Your task to perform on an android device: add a contact Image 0: 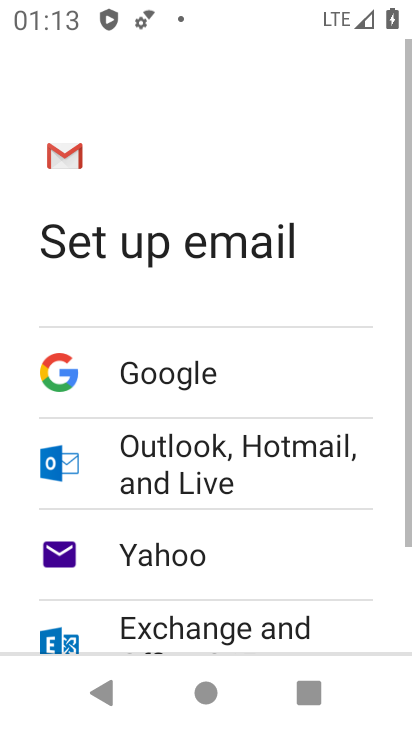
Step 0: press home button
Your task to perform on an android device: add a contact Image 1: 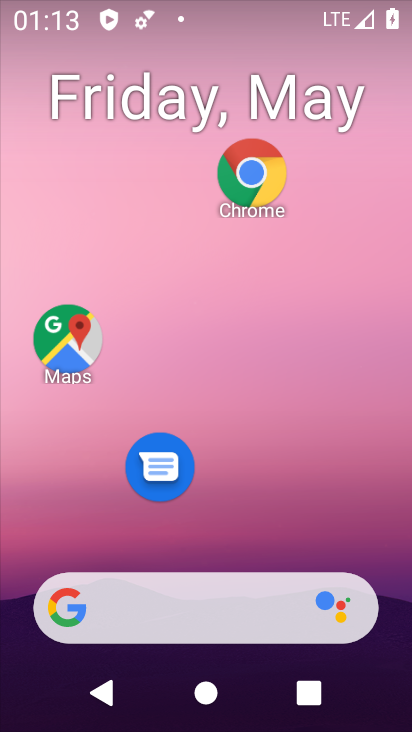
Step 1: drag from (327, 643) to (277, 280)
Your task to perform on an android device: add a contact Image 2: 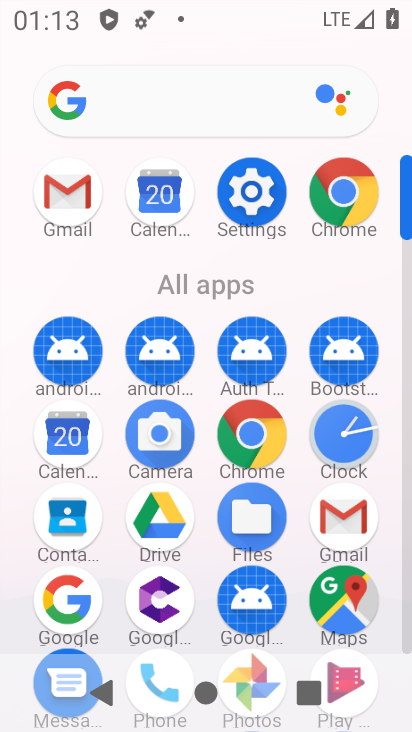
Step 2: drag from (212, 563) to (179, 450)
Your task to perform on an android device: add a contact Image 3: 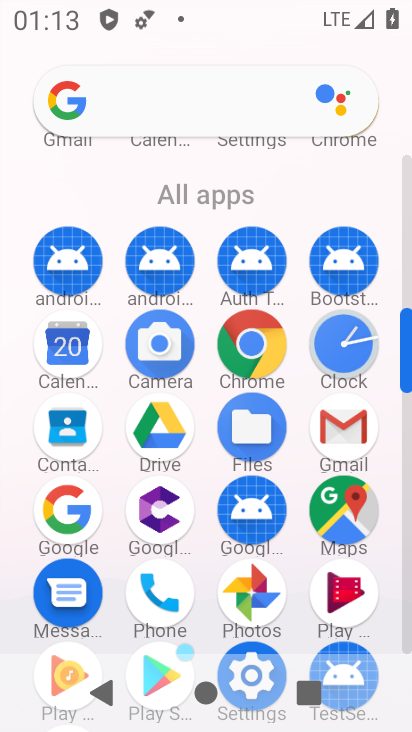
Step 3: click (162, 578)
Your task to perform on an android device: add a contact Image 4: 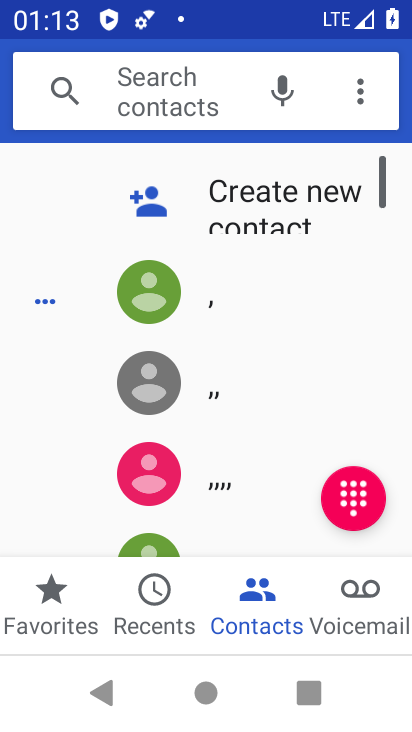
Step 4: click (176, 228)
Your task to perform on an android device: add a contact Image 5: 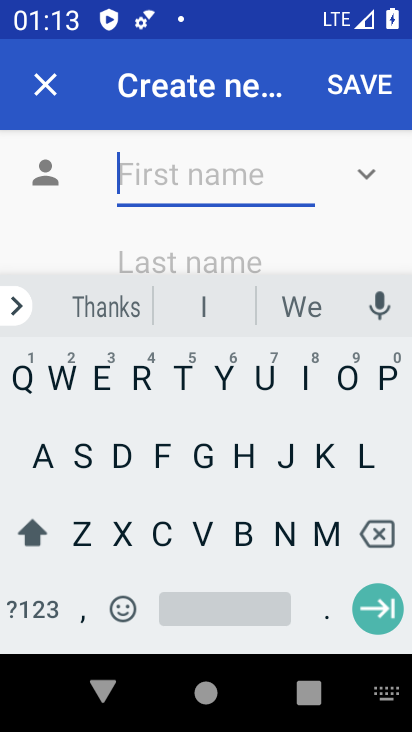
Step 5: click (52, 363)
Your task to perform on an android device: add a contact Image 6: 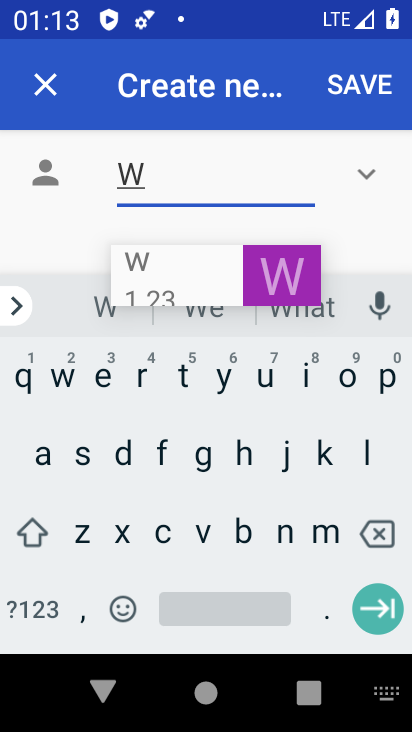
Step 6: click (134, 460)
Your task to perform on an android device: add a contact Image 7: 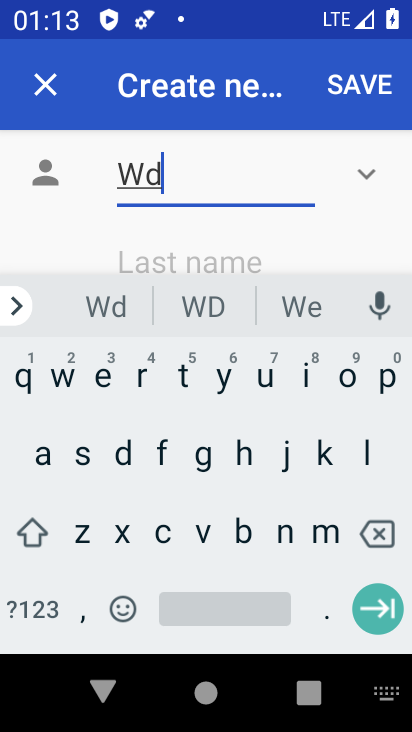
Step 7: click (161, 446)
Your task to perform on an android device: add a contact Image 8: 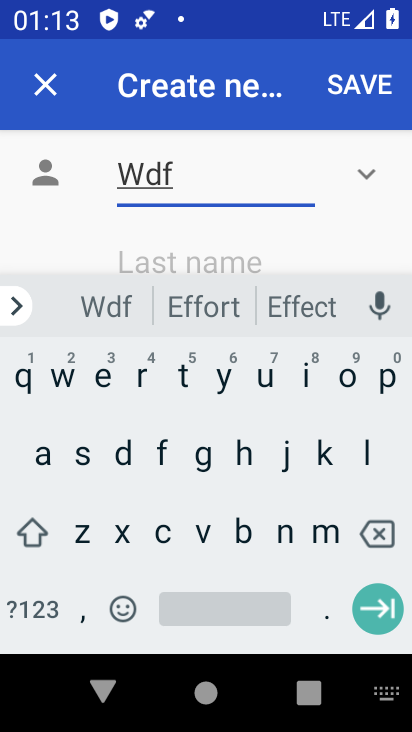
Step 8: drag from (238, 252) to (276, 124)
Your task to perform on an android device: add a contact Image 9: 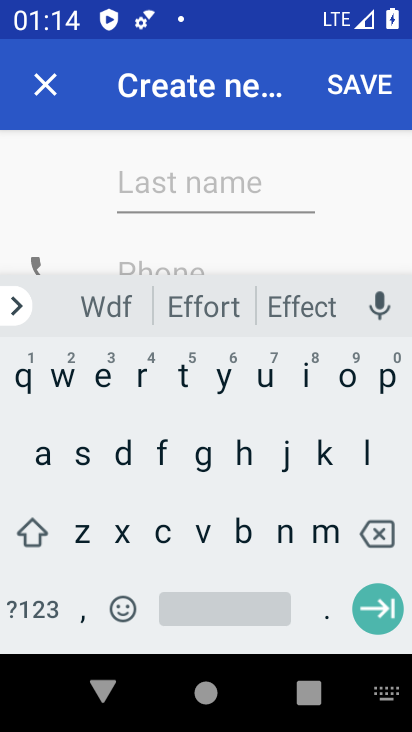
Step 9: drag from (173, 257) to (190, 164)
Your task to perform on an android device: add a contact Image 10: 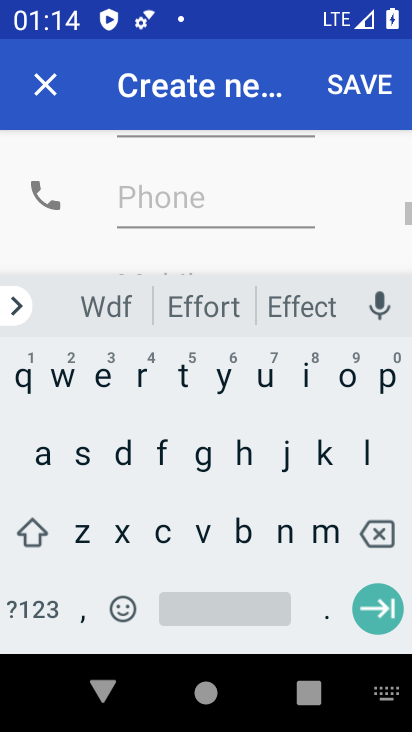
Step 10: click (153, 202)
Your task to perform on an android device: add a contact Image 11: 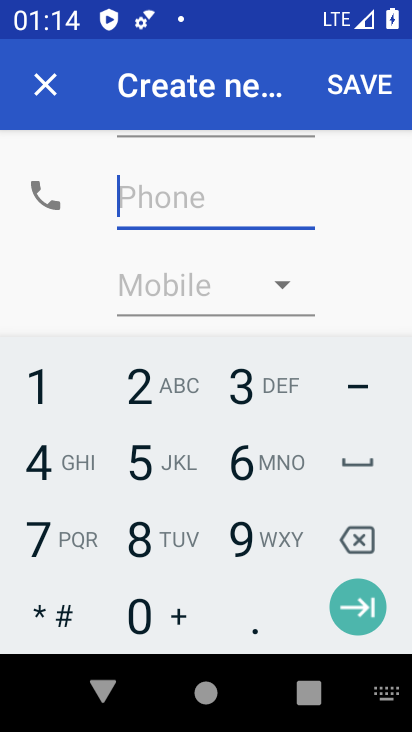
Step 11: click (239, 545)
Your task to perform on an android device: add a contact Image 12: 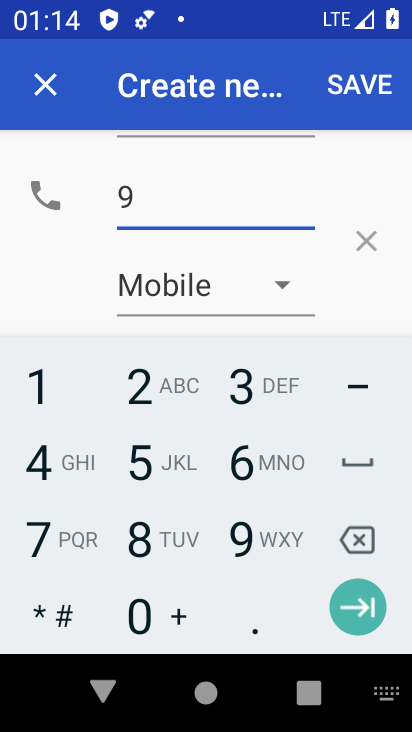
Step 12: click (156, 543)
Your task to perform on an android device: add a contact Image 13: 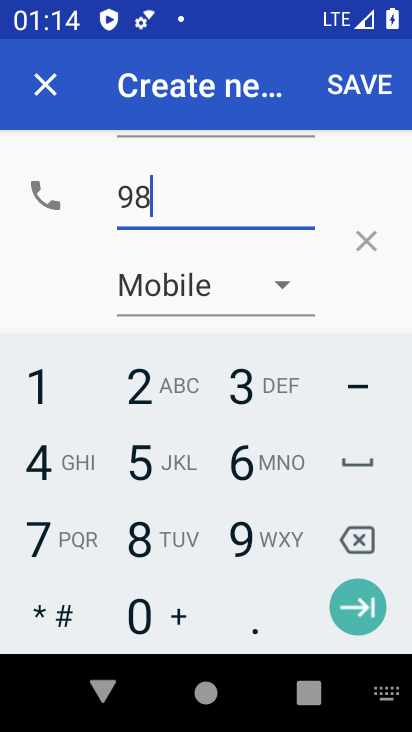
Step 13: click (144, 465)
Your task to perform on an android device: add a contact Image 14: 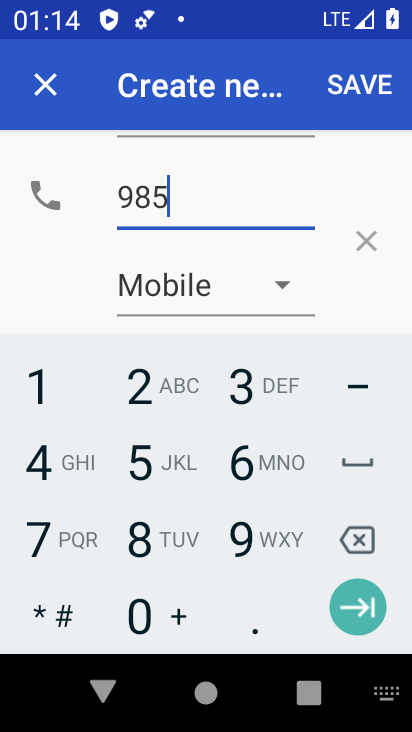
Step 14: click (246, 445)
Your task to perform on an android device: add a contact Image 15: 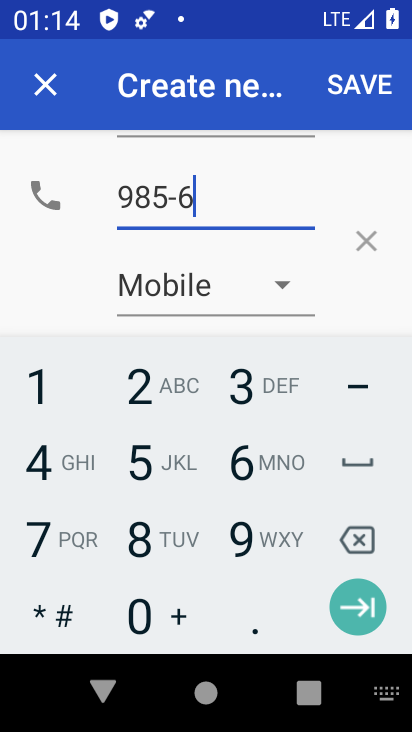
Step 15: click (132, 378)
Your task to perform on an android device: add a contact Image 16: 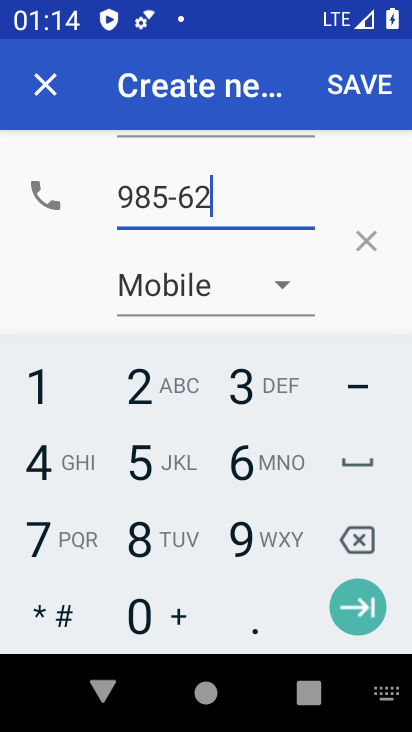
Step 16: click (140, 442)
Your task to perform on an android device: add a contact Image 17: 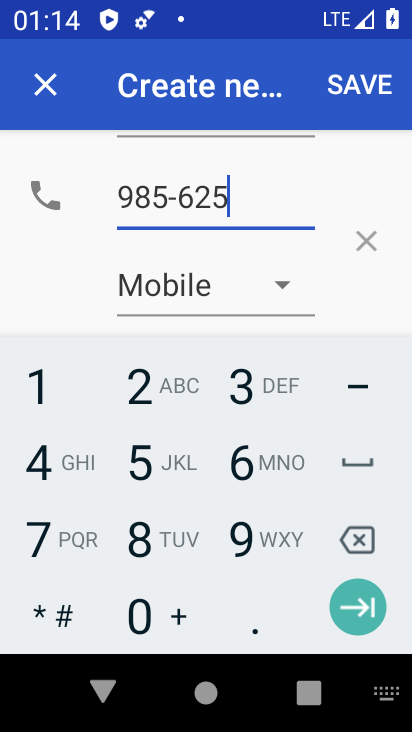
Step 17: click (120, 497)
Your task to perform on an android device: add a contact Image 18: 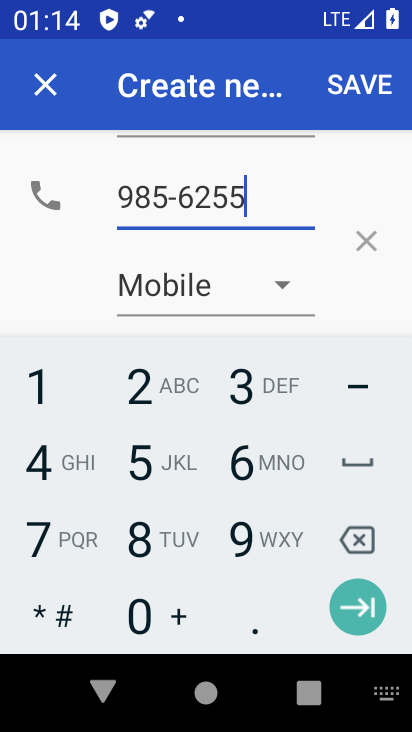
Step 18: click (44, 445)
Your task to perform on an android device: add a contact Image 19: 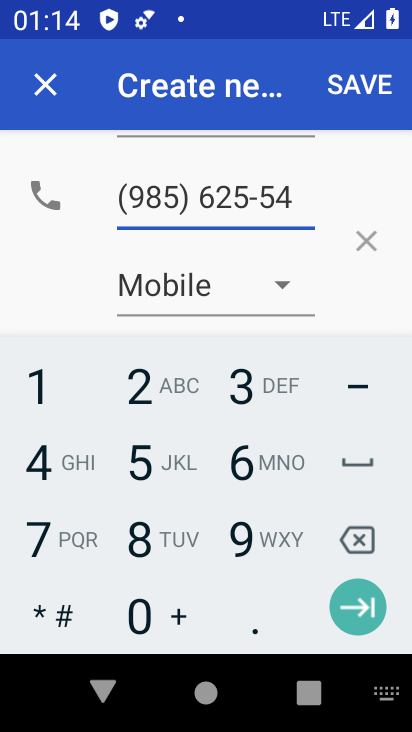
Step 19: click (117, 456)
Your task to perform on an android device: add a contact Image 20: 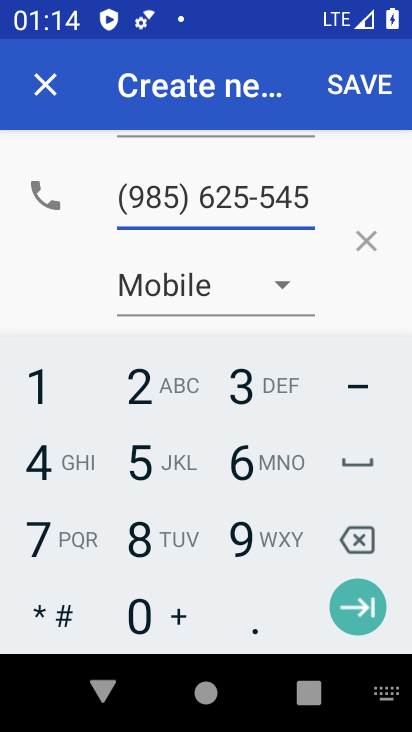
Step 20: click (134, 524)
Your task to perform on an android device: add a contact Image 21: 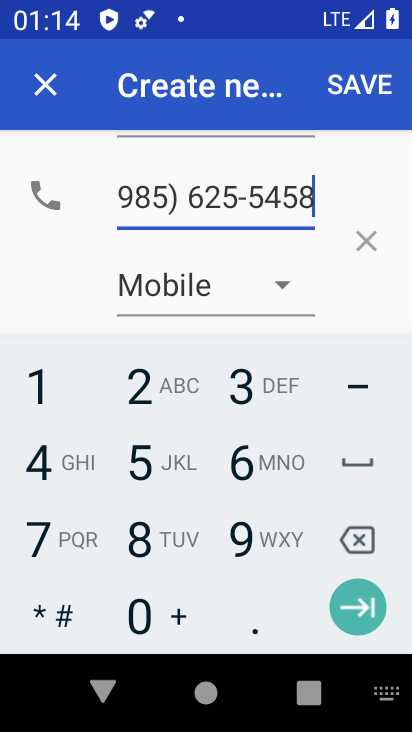
Step 21: click (350, 87)
Your task to perform on an android device: add a contact Image 22: 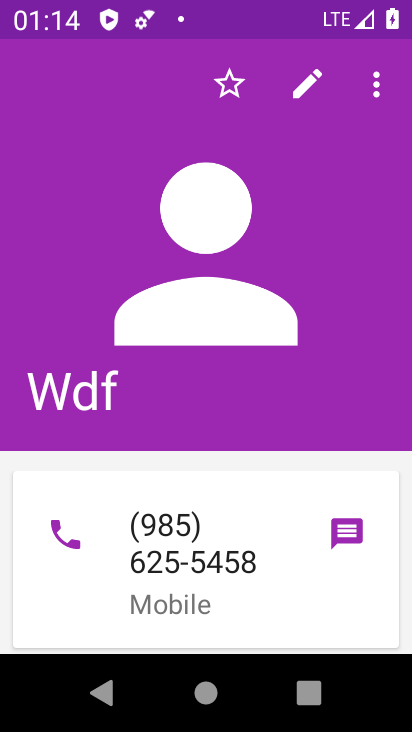
Step 22: task complete